Your task to perform on an android device: move an email to a new category in the gmail app Image 0: 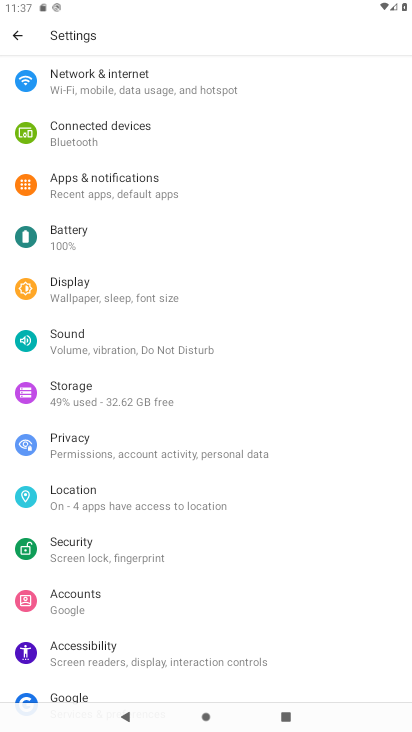
Step 0: press home button
Your task to perform on an android device: move an email to a new category in the gmail app Image 1: 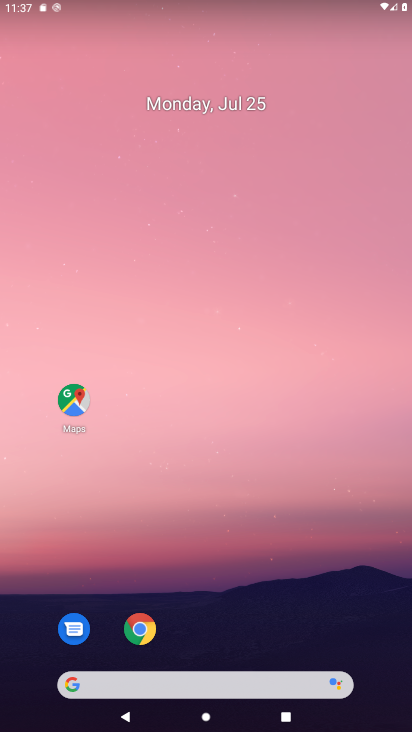
Step 1: drag from (213, 680) to (235, 11)
Your task to perform on an android device: move an email to a new category in the gmail app Image 2: 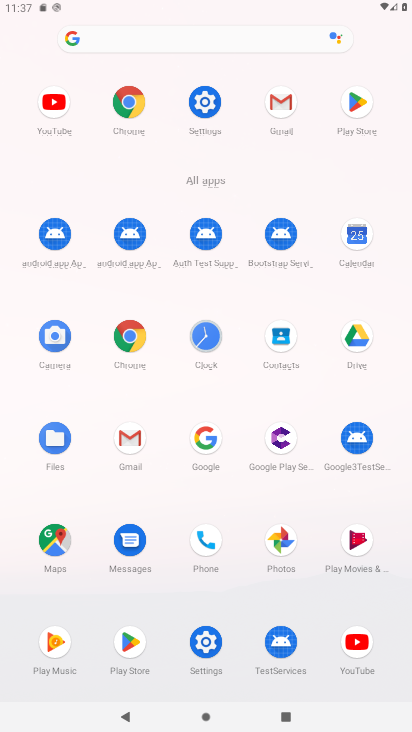
Step 2: click (131, 450)
Your task to perform on an android device: move an email to a new category in the gmail app Image 3: 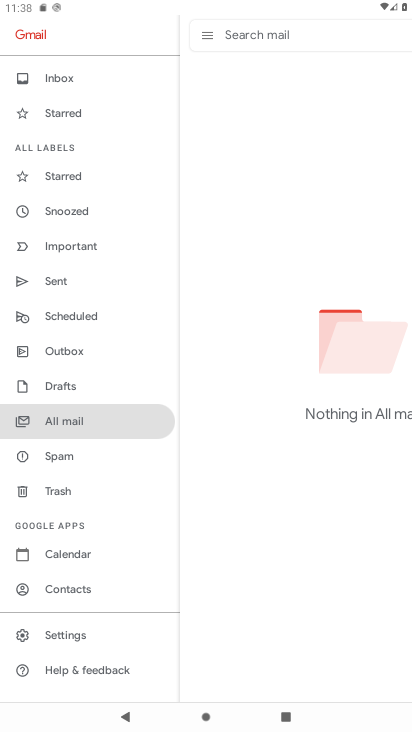
Step 3: click (94, 425)
Your task to perform on an android device: move an email to a new category in the gmail app Image 4: 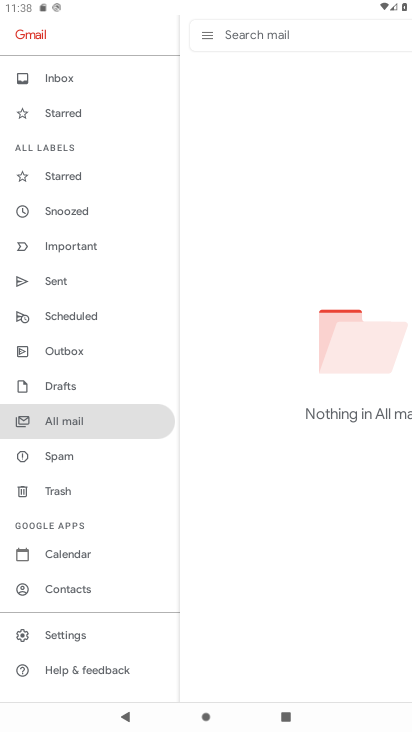
Step 4: task complete